Your task to perform on an android device: turn on airplane mode Image 0: 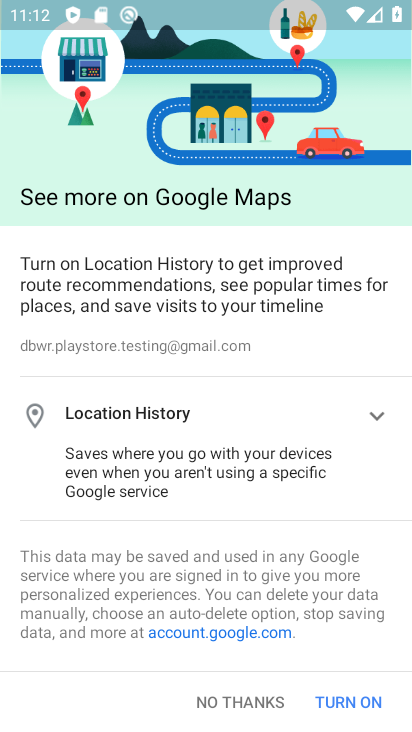
Step 0: drag from (232, 9) to (178, 676)
Your task to perform on an android device: turn on airplane mode Image 1: 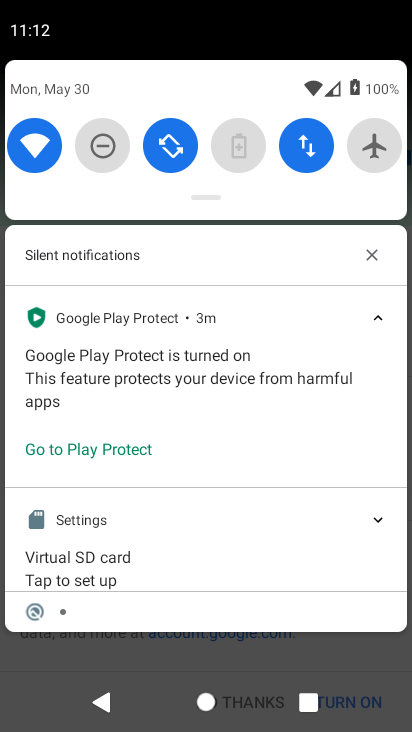
Step 1: click (369, 147)
Your task to perform on an android device: turn on airplane mode Image 2: 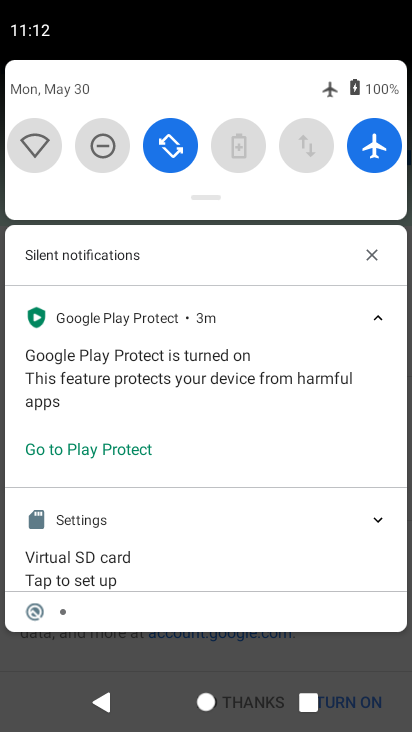
Step 2: task complete